Your task to perform on an android device: Search for vegetarian restaurants on Maps Image 0: 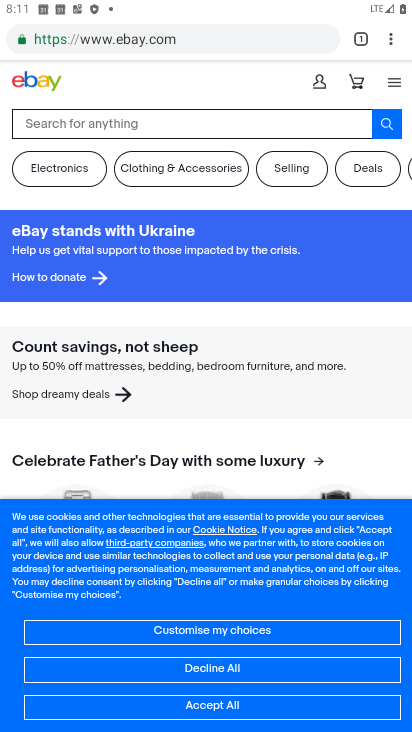
Step 0: press back button
Your task to perform on an android device: Search for vegetarian restaurants on Maps Image 1: 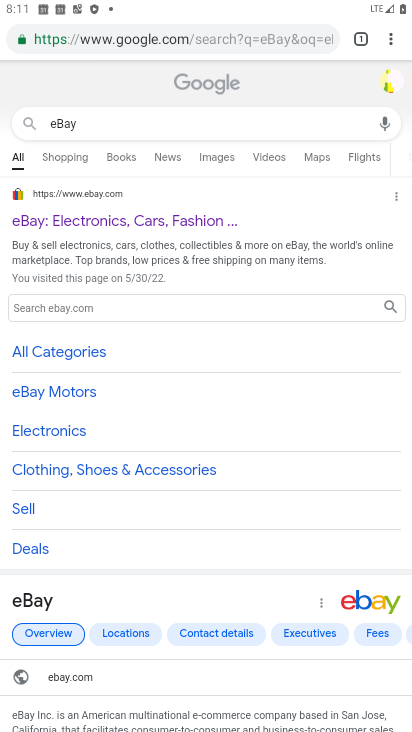
Step 1: press back button
Your task to perform on an android device: Search for vegetarian restaurants on Maps Image 2: 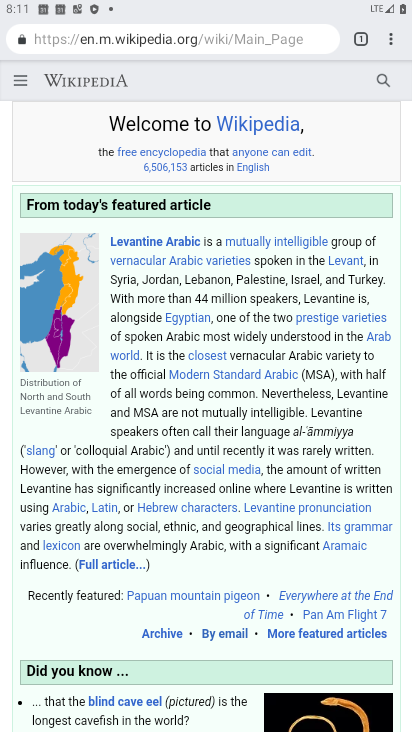
Step 2: press back button
Your task to perform on an android device: Search for vegetarian restaurants on Maps Image 3: 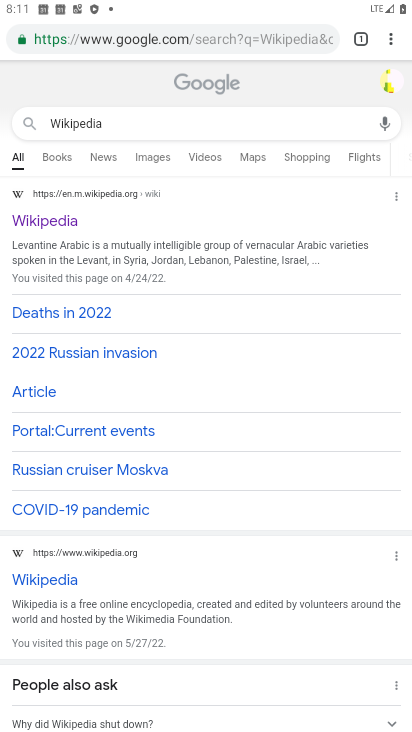
Step 3: press back button
Your task to perform on an android device: Search for vegetarian restaurants on Maps Image 4: 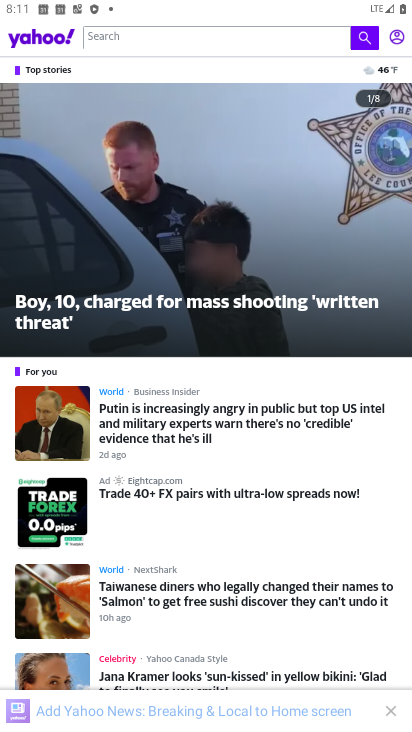
Step 4: press back button
Your task to perform on an android device: Search for vegetarian restaurants on Maps Image 5: 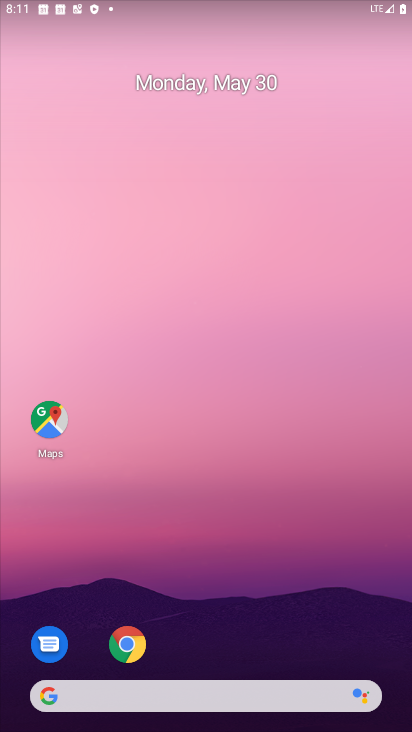
Step 5: click (47, 421)
Your task to perform on an android device: Search for vegetarian restaurants on Maps Image 6: 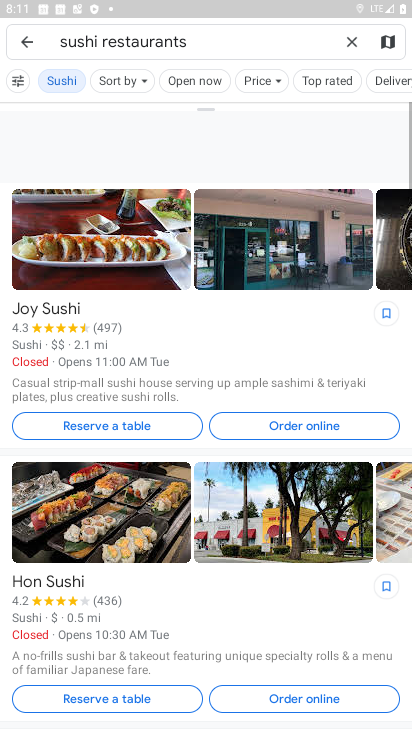
Step 6: click (352, 39)
Your task to perform on an android device: Search for vegetarian restaurants on Maps Image 7: 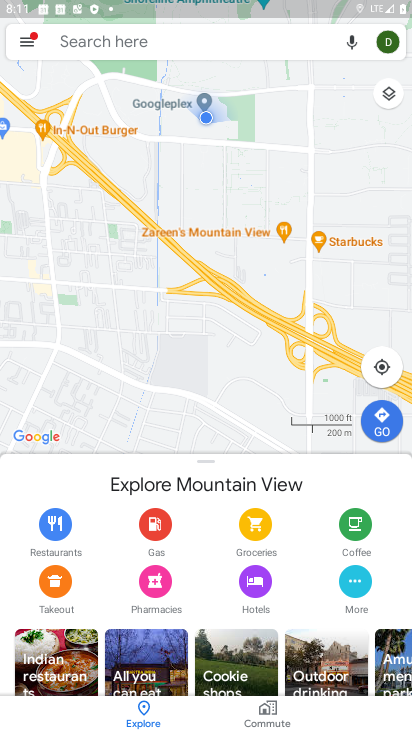
Step 7: click (197, 42)
Your task to perform on an android device: Search for vegetarian restaurants on Maps Image 8: 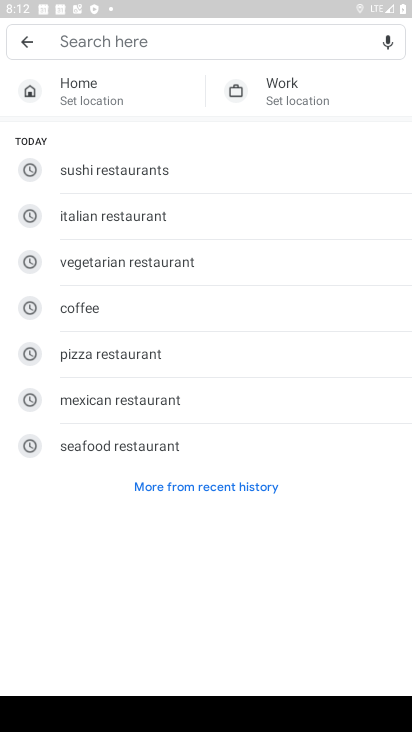
Step 8: type "vegetarian restaurants"
Your task to perform on an android device: Search for vegetarian restaurants on Maps Image 9: 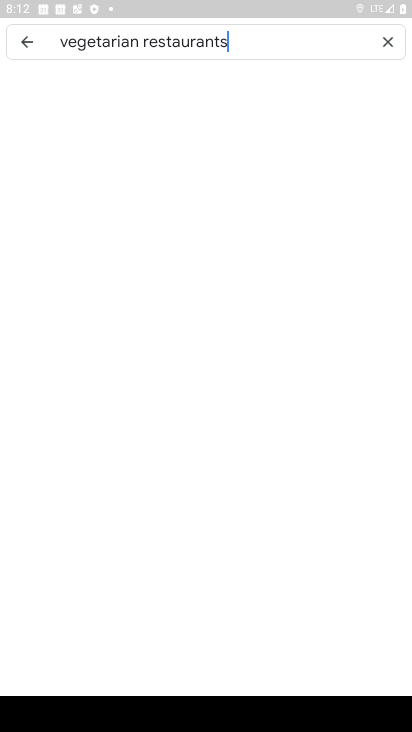
Step 9: type ""
Your task to perform on an android device: Search for vegetarian restaurants on Maps Image 10: 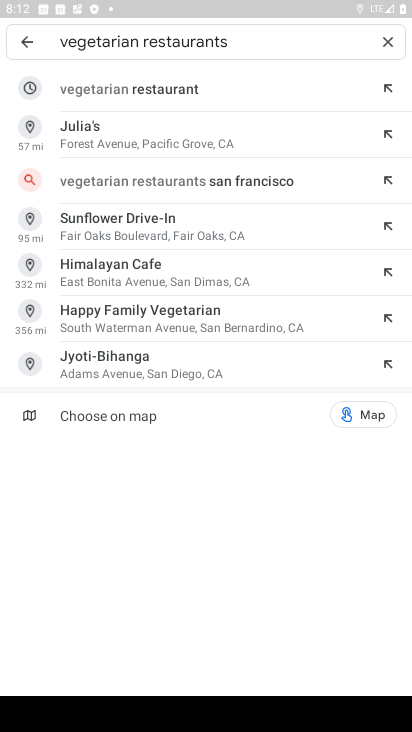
Step 10: click (161, 91)
Your task to perform on an android device: Search for vegetarian restaurants on Maps Image 11: 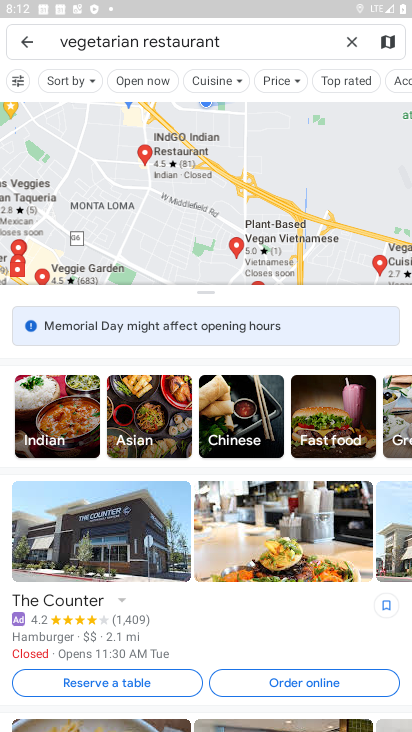
Step 11: task complete